Your task to perform on an android device: Open eBay Image 0: 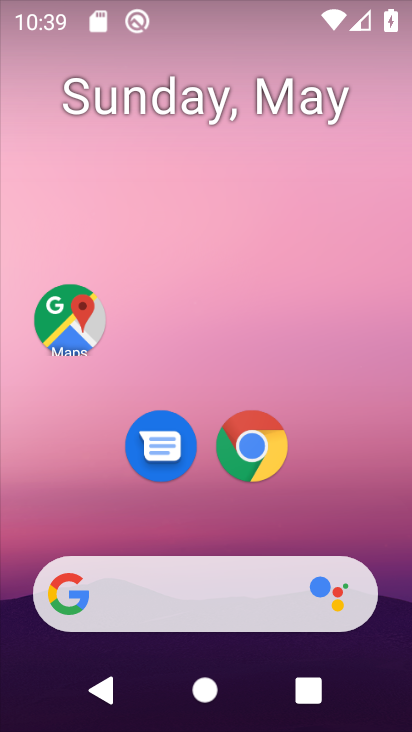
Step 0: click (272, 447)
Your task to perform on an android device: Open eBay Image 1: 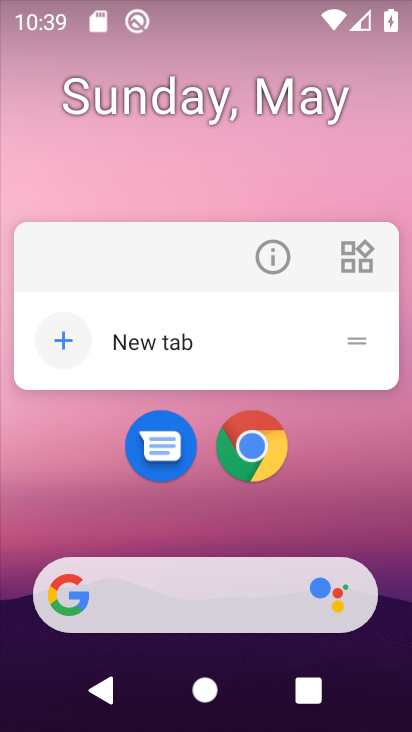
Step 1: click (259, 448)
Your task to perform on an android device: Open eBay Image 2: 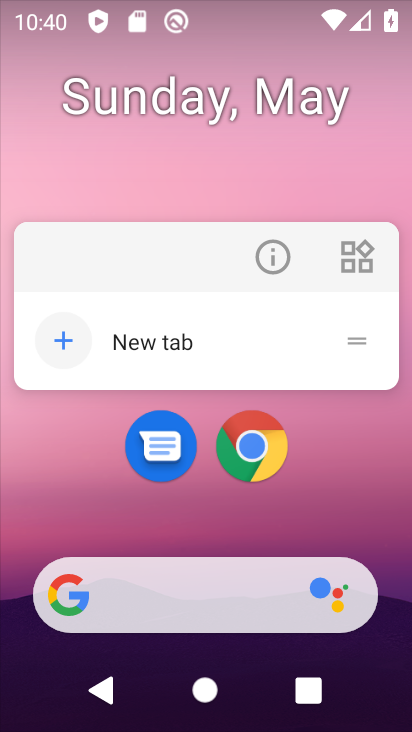
Step 2: click (254, 454)
Your task to perform on an android device: Open eBay Image 3: 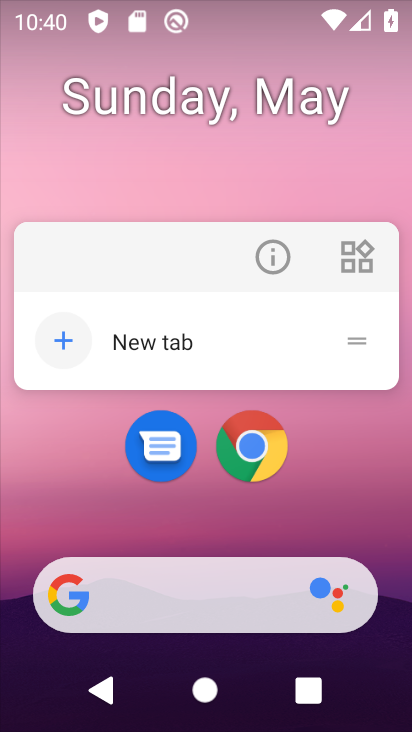
Step 3: click (254, 457)
Your task to perform on an android device: Open eBay Image 4: 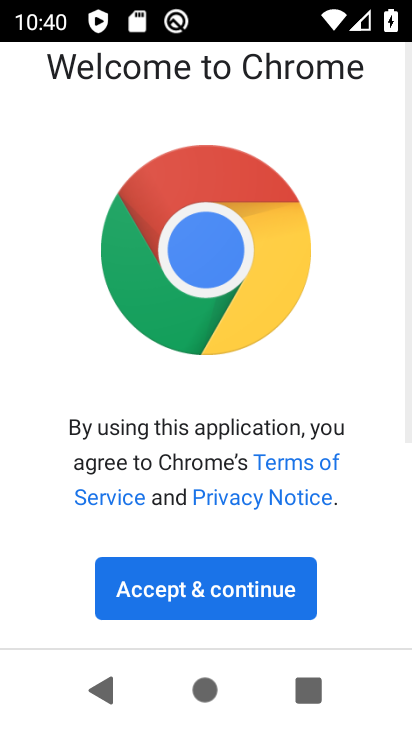
Step 4: click (240, 589)
Your task to perform on an android device: Open eBay Image 5: 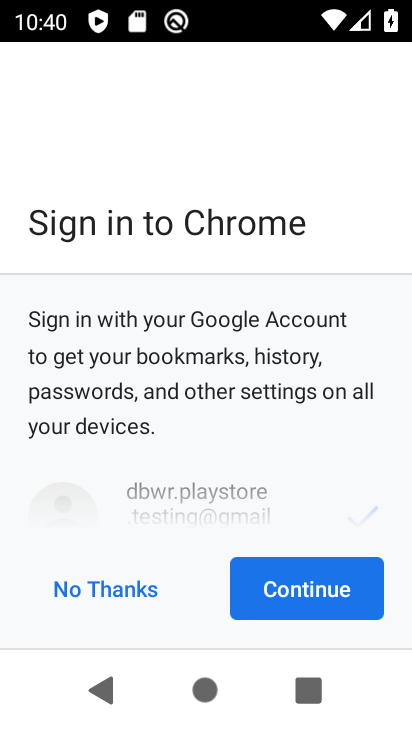
Step 5: click (323, 566)
Your task to perform on an android device: Open eBay Image 6: 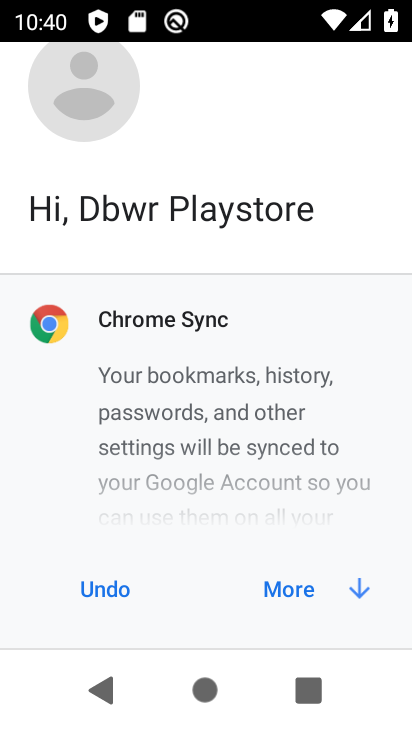
Step 6: click (306, 595)
Your task to perform on an android device: Open eBay Image 7: 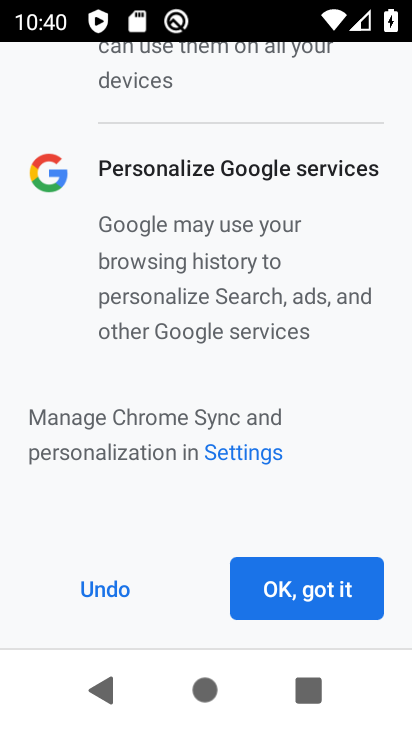
Step 7: click (310, 597)
Your task to perform on an android device: Open eBay Image 8: 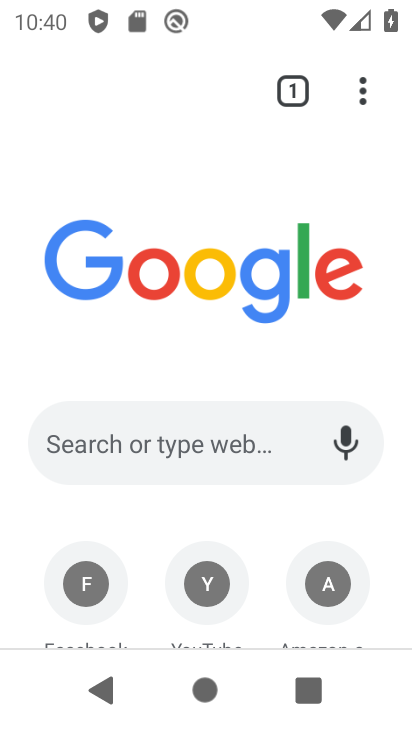
Step 8: click (200, 449)
Your task to perform on an android device: Open eBay Image 9: 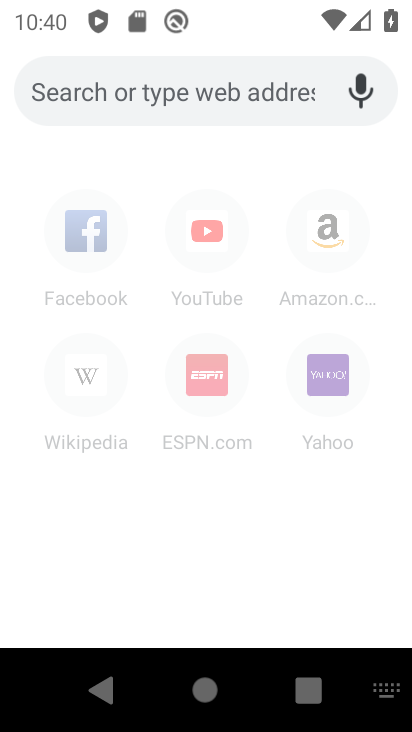
Step 9: type "eBay"
Your task to perform on an android device: Open eBay Image 10: 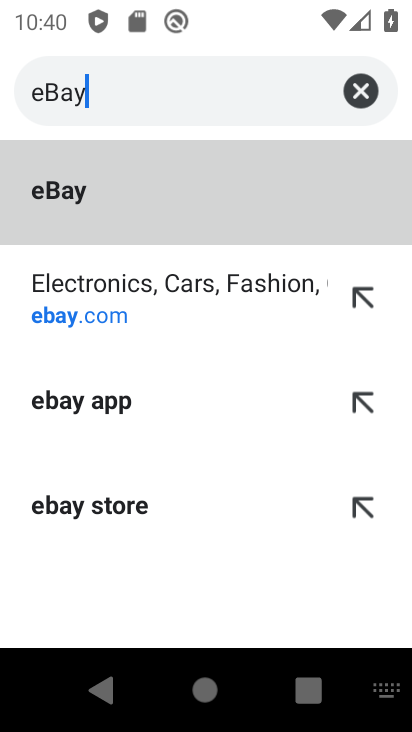
Step 10: click (150, 319)
Your task to perform on an android device: Open eBay Image 11: 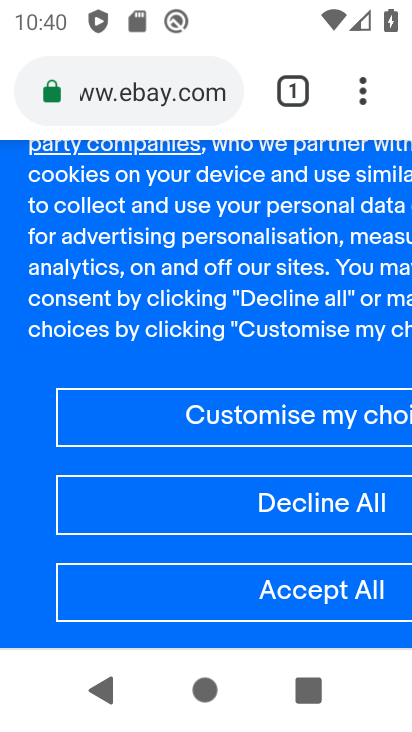
Step 11: task complete